Your task to perform on an android device: Open the phone app and click the voicemail tab. Image 0: 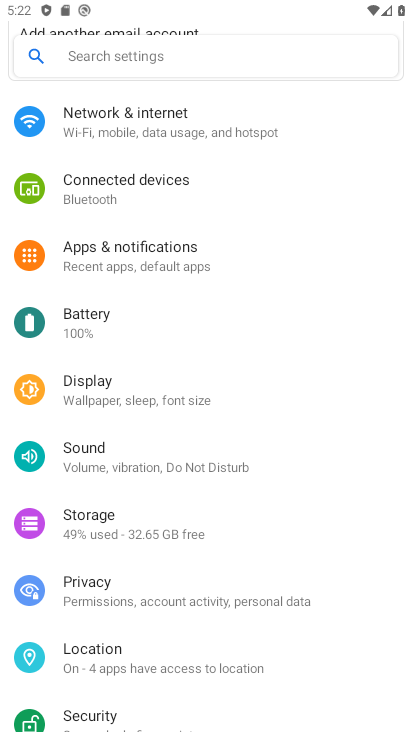
Step 0: press home button
Your task to perform on an android device: Open the phone app and click the voicemail tab. Image 1: 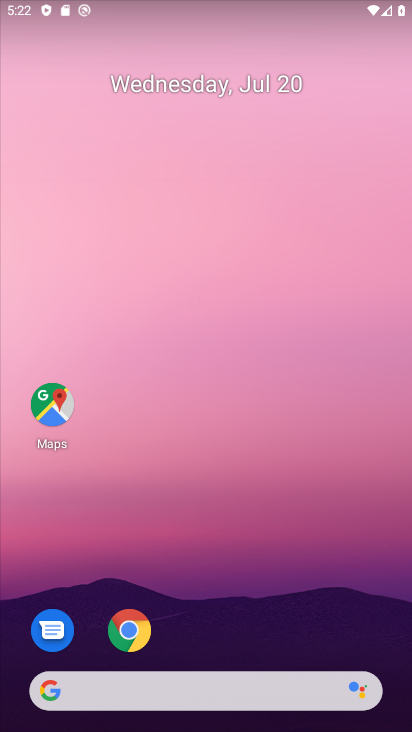
Step 1: drag from (290, 689) to (346, 19)
Your task to perform on an android device: Open the phone app and click the voicemail tab. Image 2: 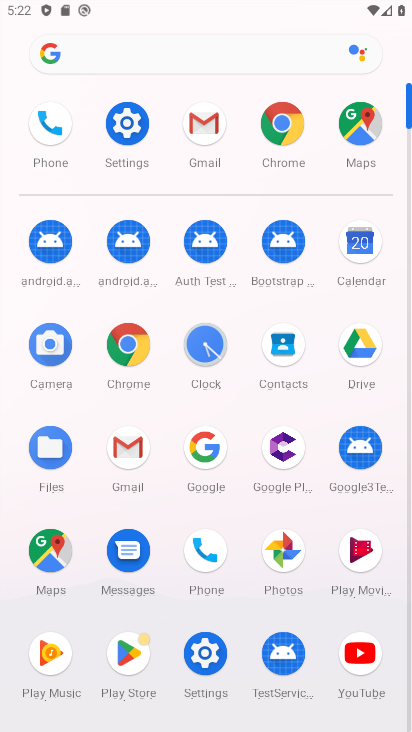
Step 2: click (193, 549)
Your task to perform on an android device: Open the phone app and click the voicemail tab. Image 3: 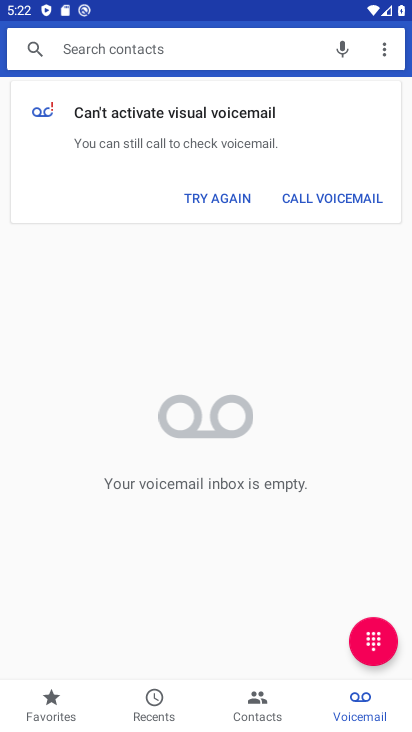
Step 3: click (352, 704)
Your task to perform on an android device: Open the phone app and click the voicemail tab. Image 4: 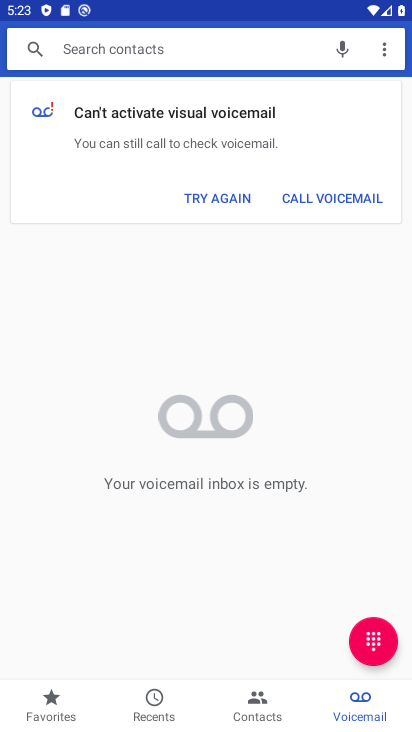
Step 4: task complete